Your task to perform on an android device: Add "logitech g pro" to the cart on walmart.com Image 0: 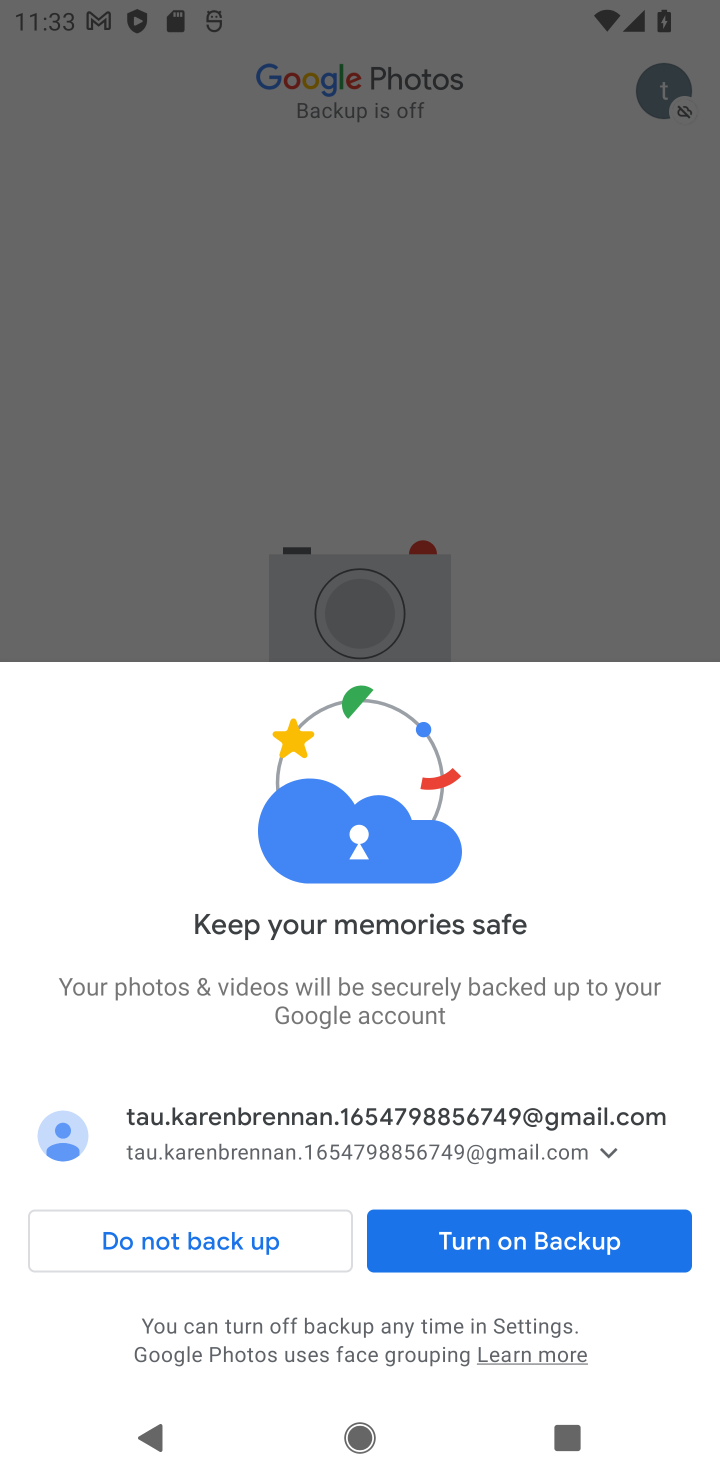
Step 0: press home button
Your task to perform on an android device: Add "logitech g pro" to the cart on walmart.com Image 1: 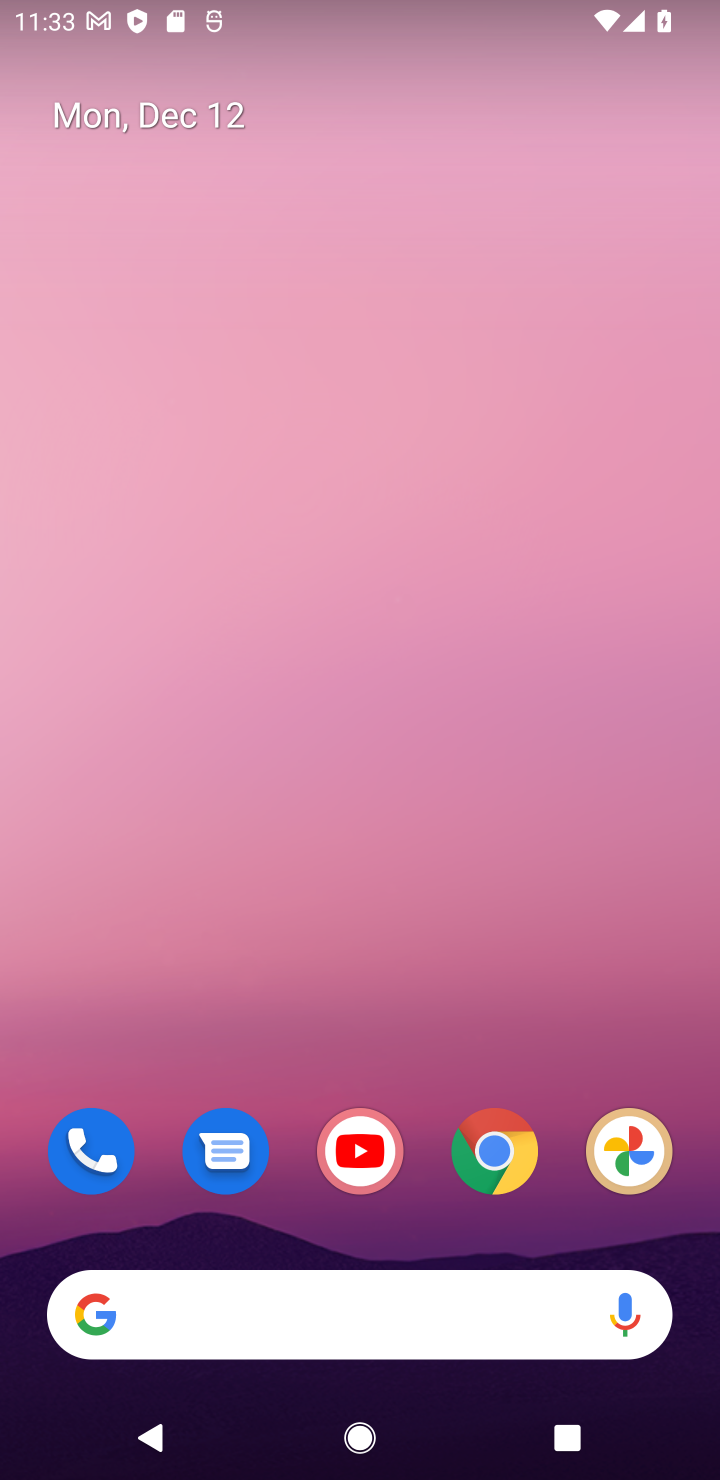
Step 1: drag from (450, 1233) to (485, 153)
Your task to perform on an android device: Add "logitech g pro" to the cart on walmart.com Image 2: 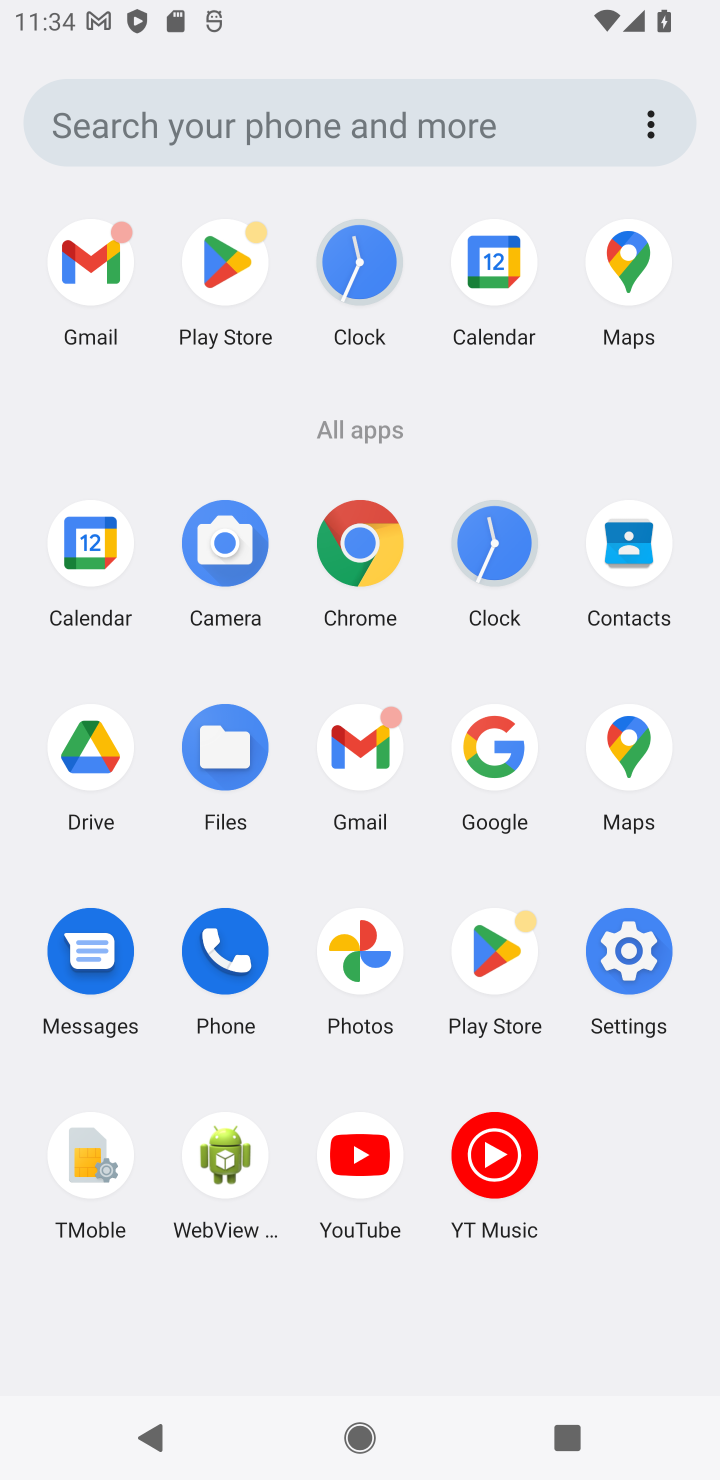
Step 2: click (507, 743)
Your task to perform on an android device: Add "logitech g pro" to the cart on walmart.com Image 3: 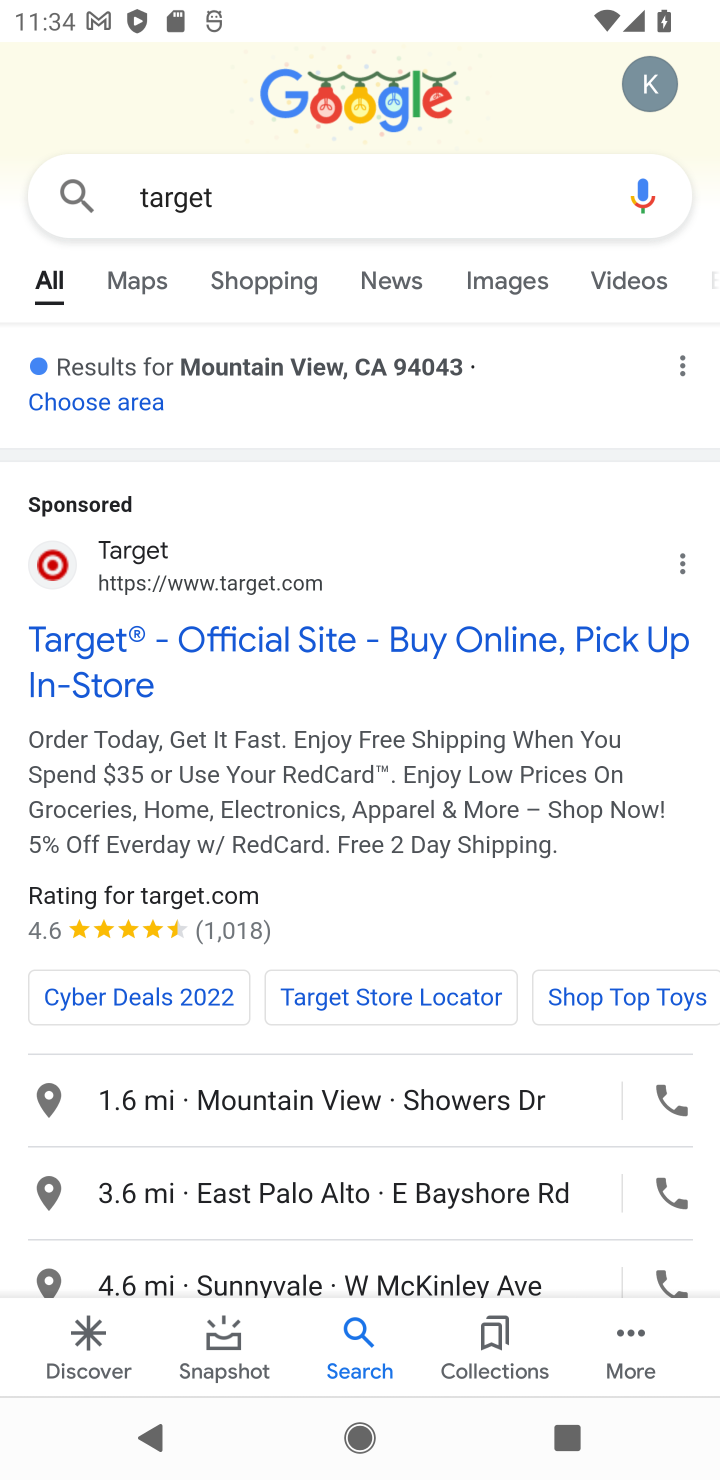
Step 3: click (206, 207)
Your task to perform on an android device: Add "logitech g pro" to the cart on walmart.com Image 4: 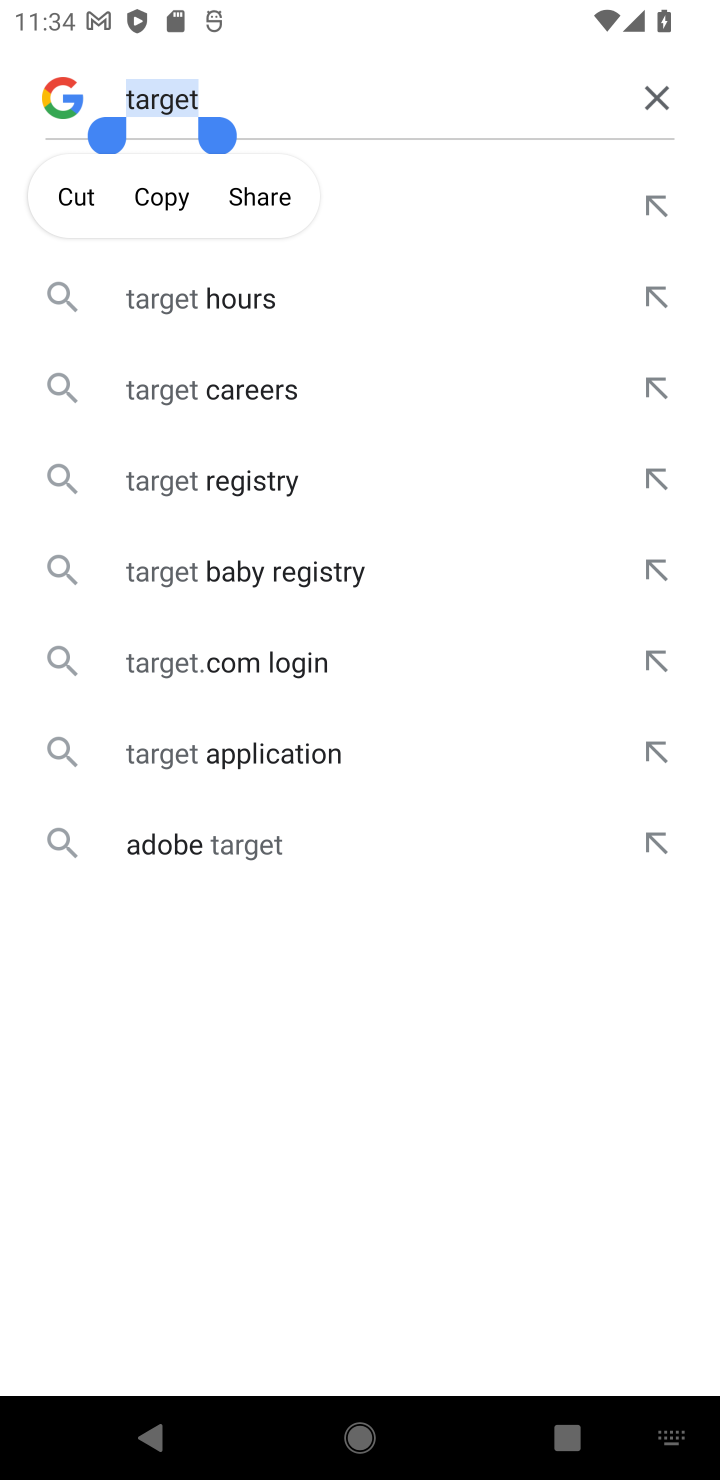
Step 4: click (662, 100)
Your task to perform on an android device: Add "logitech g pro" to the cart on walmart.com Image 5: 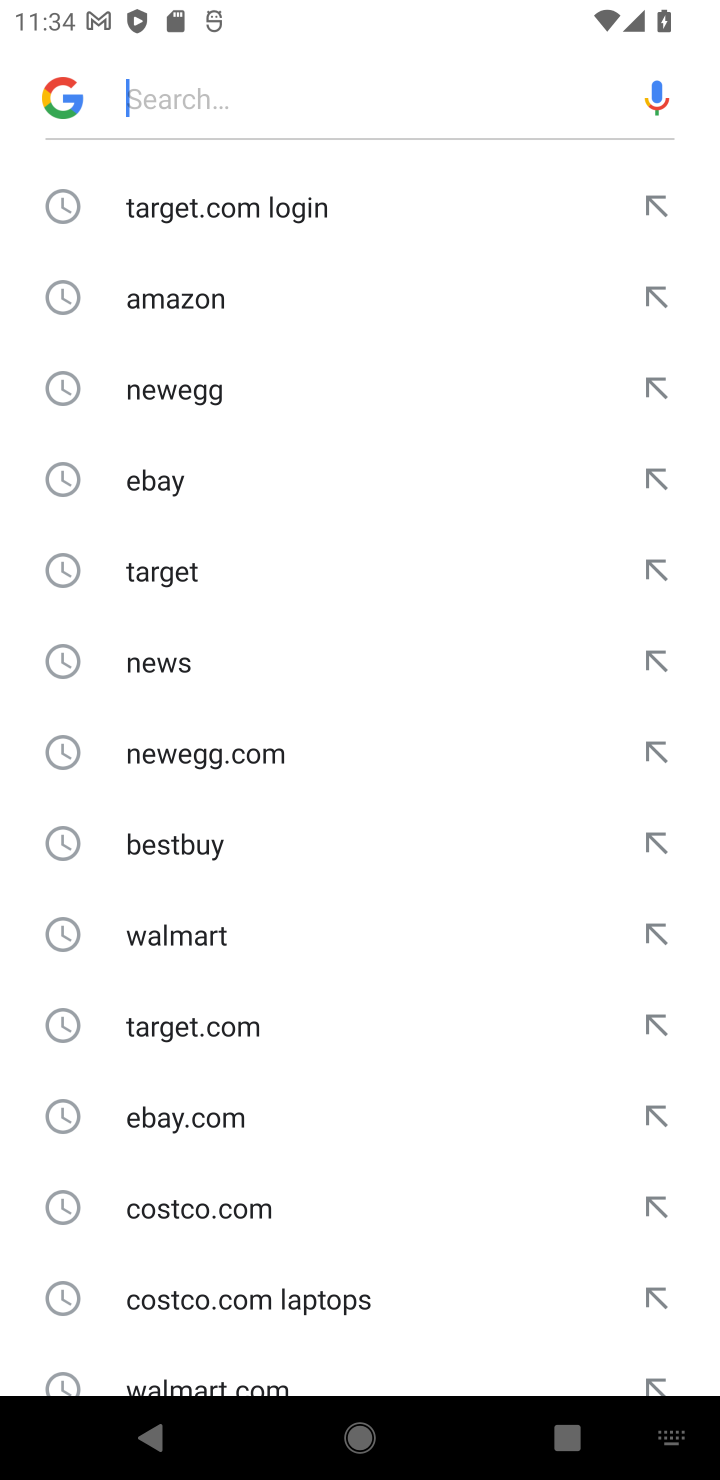
Step 5: click (186, 948)
Your task to perform on an android device: Add "logitech g pro" to the cart on walmart.com Image 6: 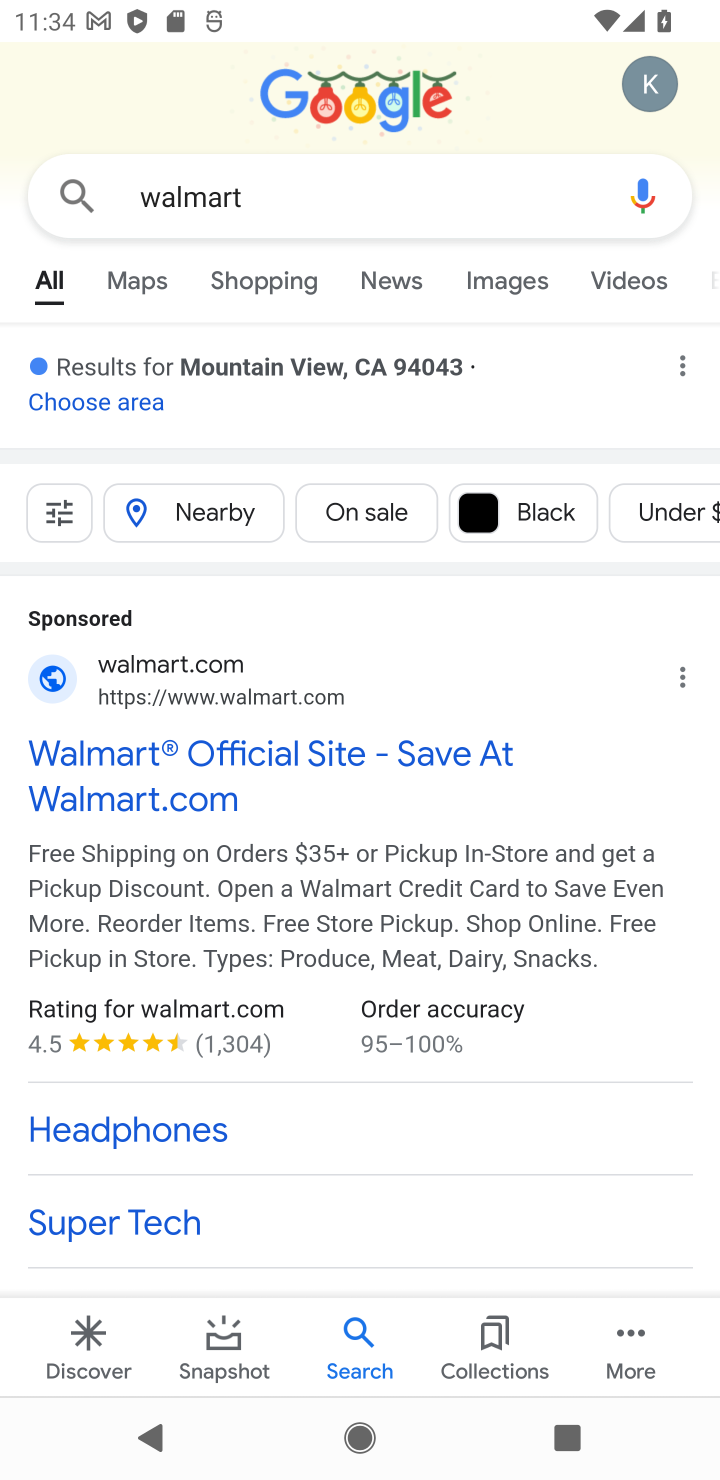
Step 6: click (92, 756)
Your task to perform on an android device: Add "logitech g pro" to the cart on walmart.com Image 7: 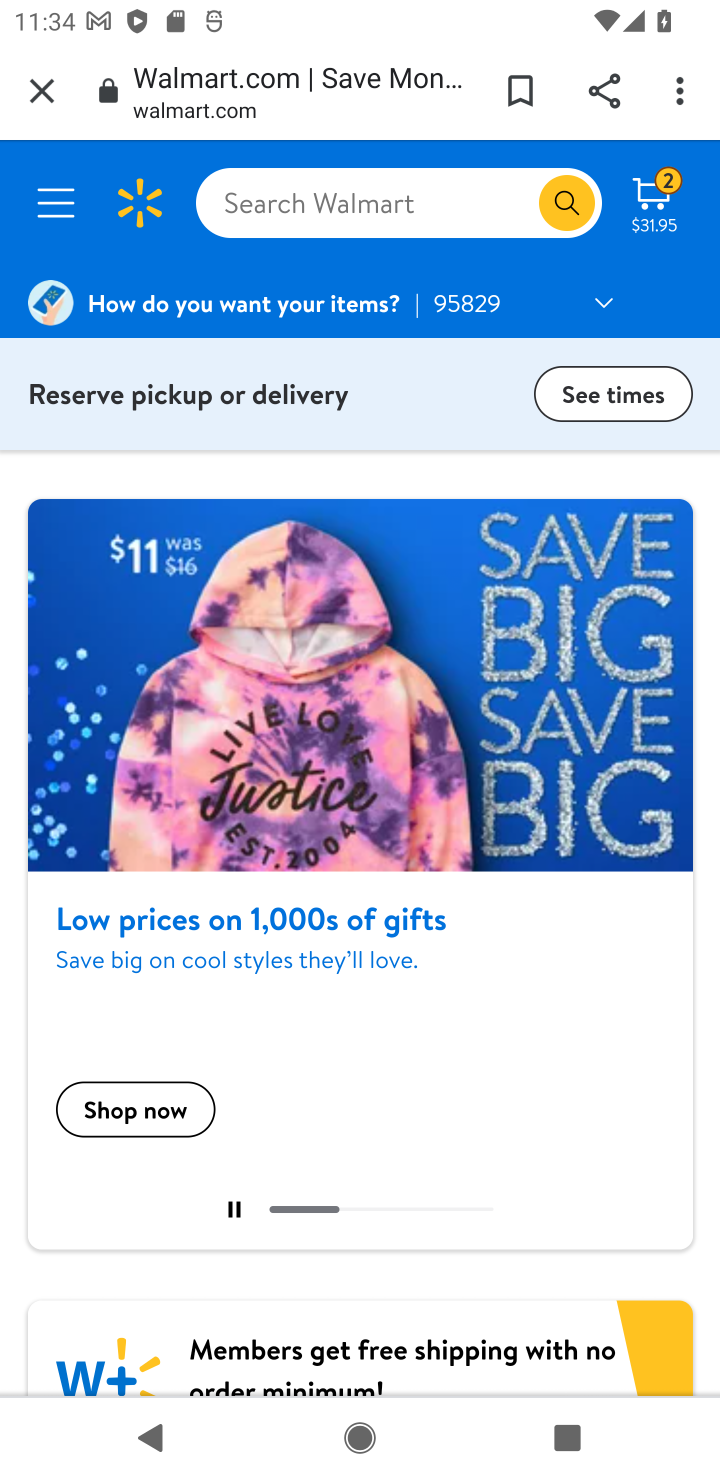
Step 7: click (314, 209)
Your task to perform on an android device: Add "logitech g pro" to the cart on walmart.com Image 8: 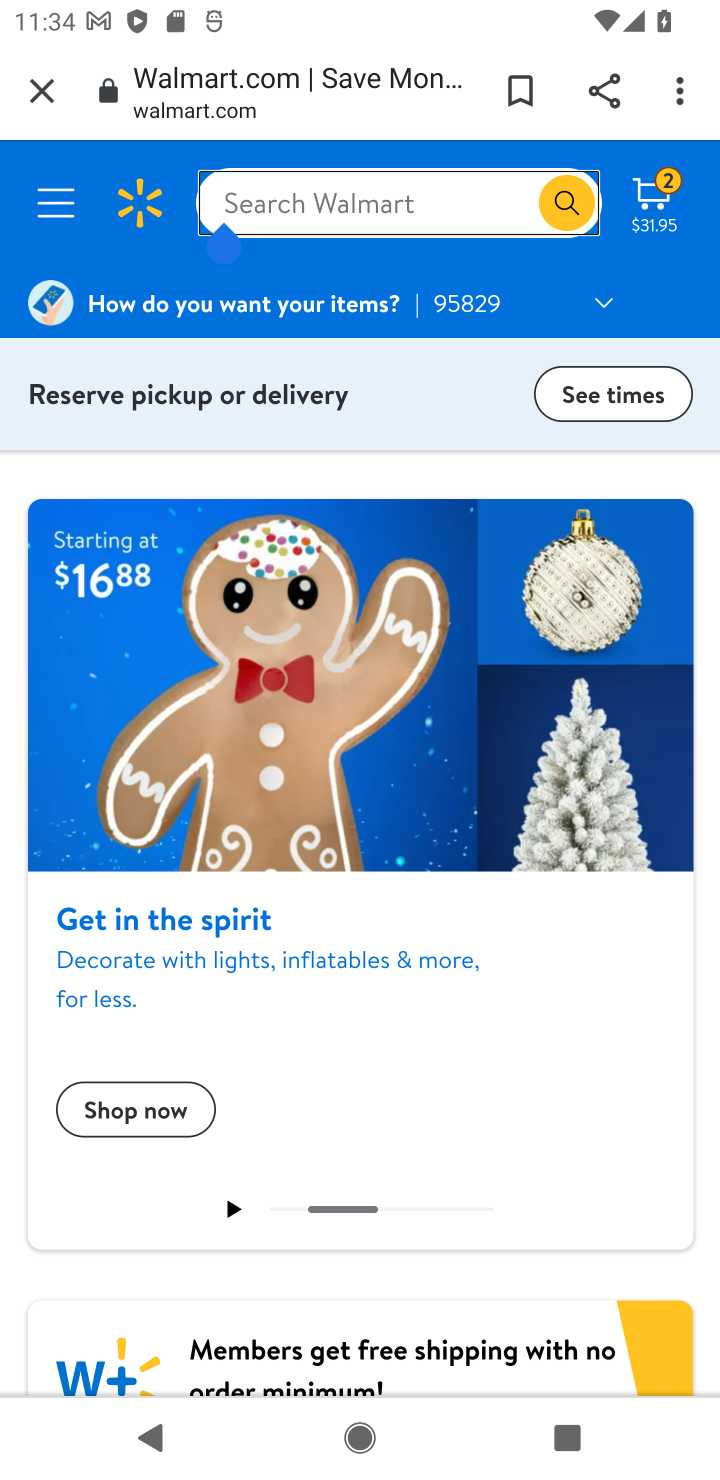
Step 8: type "logitech g pro"
Your task to perform on an android device: Add "logitech g pro" to the cart on walmart.com Image 9: 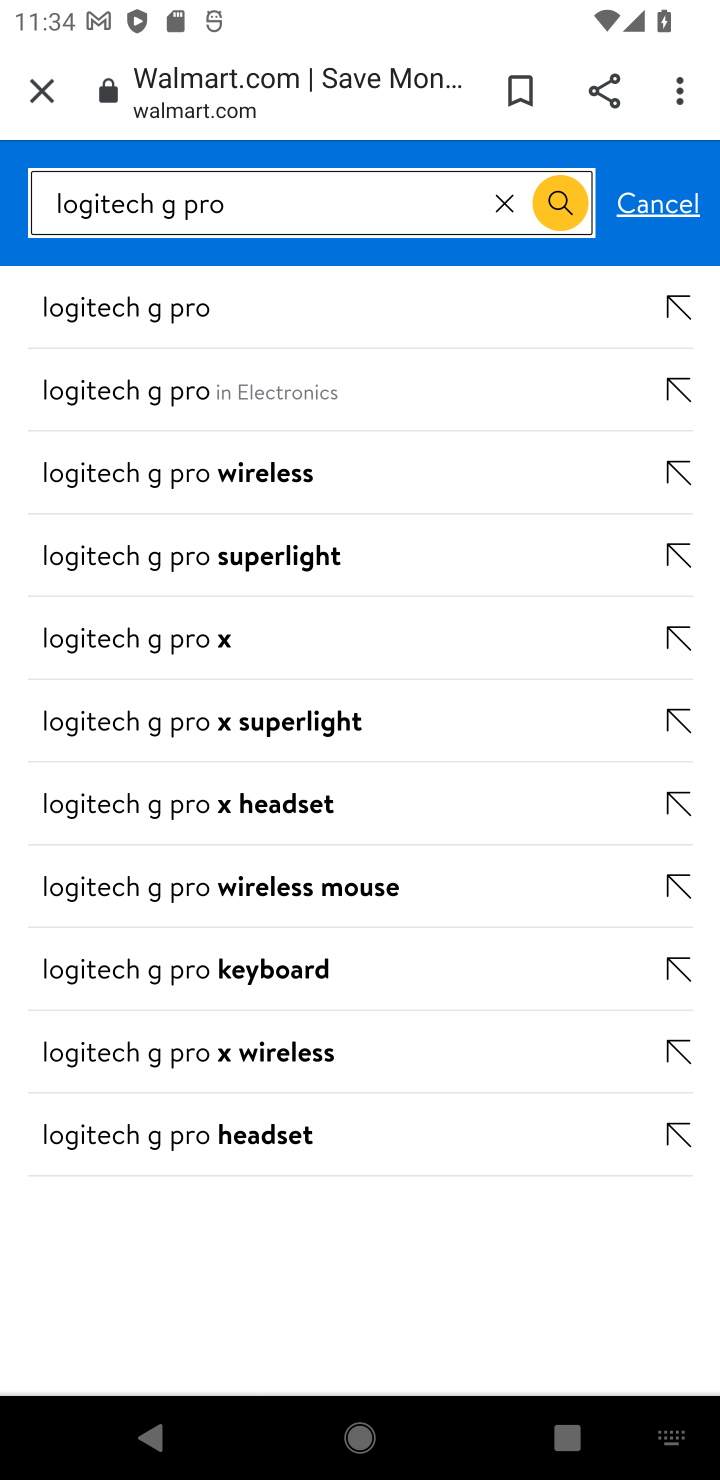
Step 9: click (76, 310)
Your task to perform on an android device: Add "logitech g pro" to the cart on walmart.com Image 10: 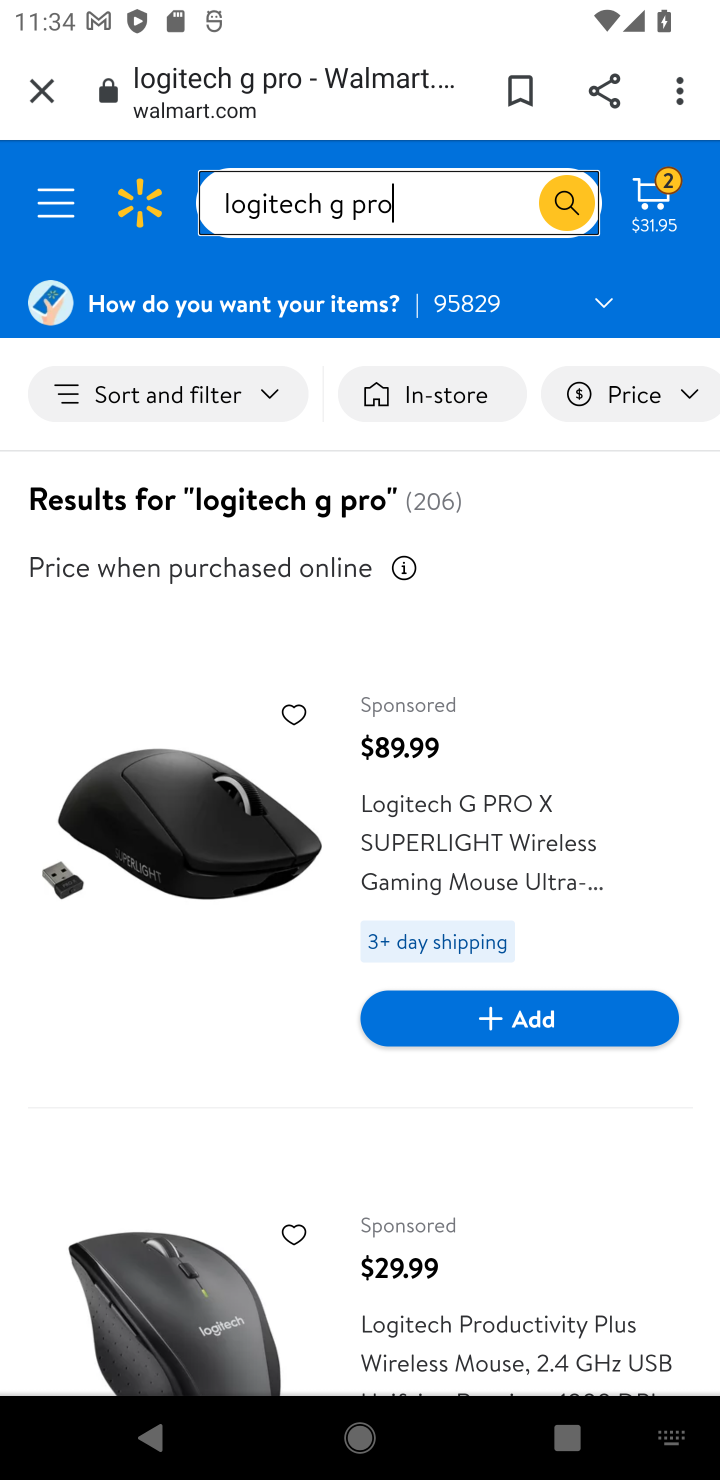
Step 10: click (468, 1025)
Your task to perform on an android device: Add "logitech g pro" to the cart on walmart.com Image 11: 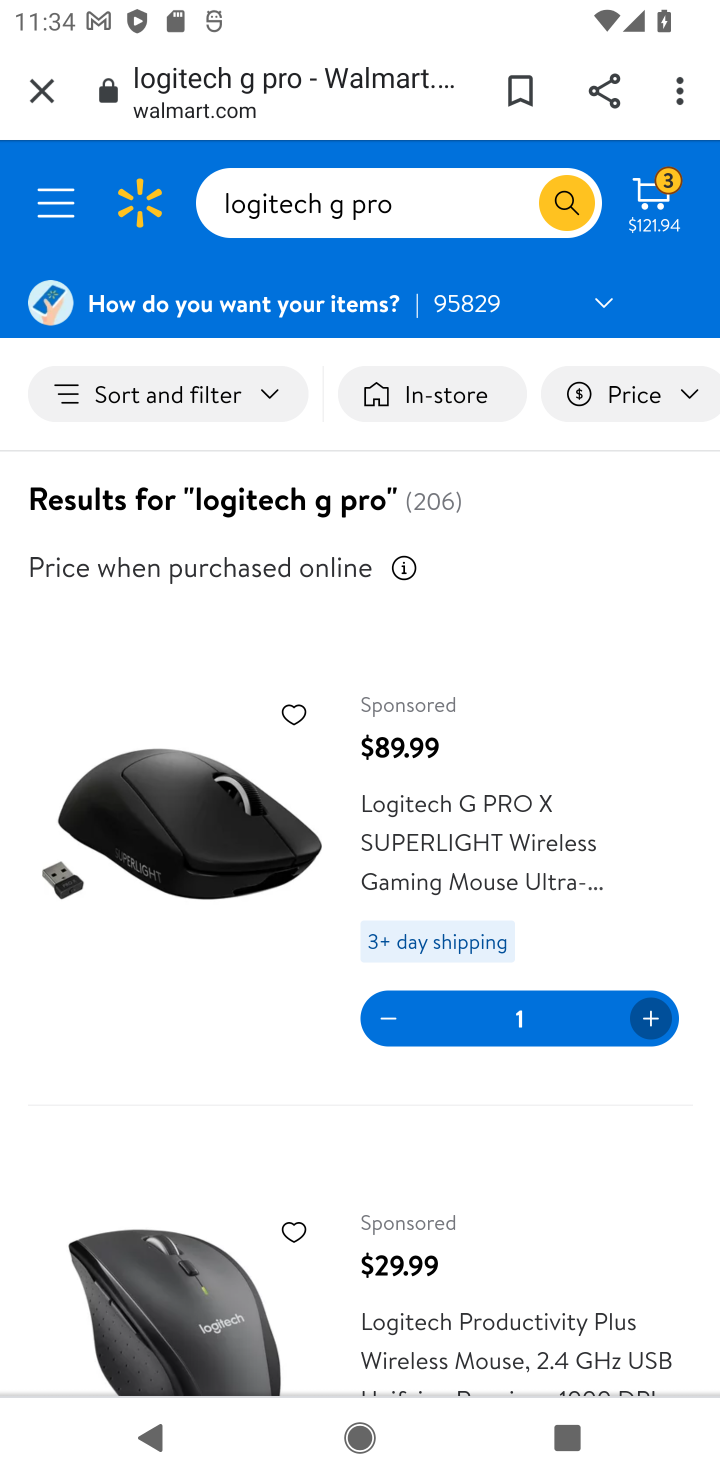
Step 11: task complete